Your task to perform on an android device: turn on the 12-hour format for clock Image 0: 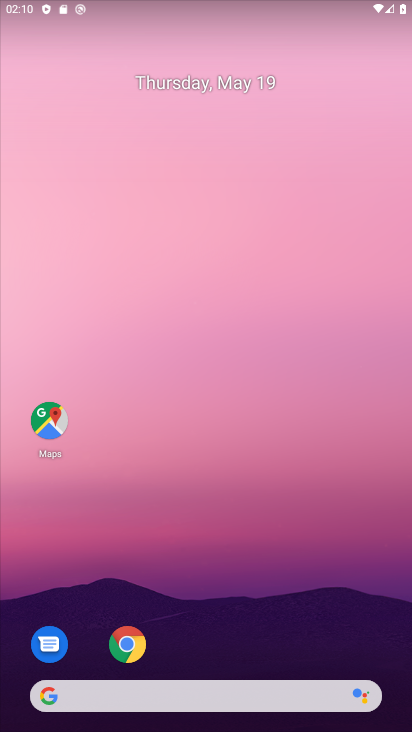
Step 0: drag from (224, 592) to (201, 216)
Your task to perform on an android device: turn on the 12-hour format for clock Image 1: 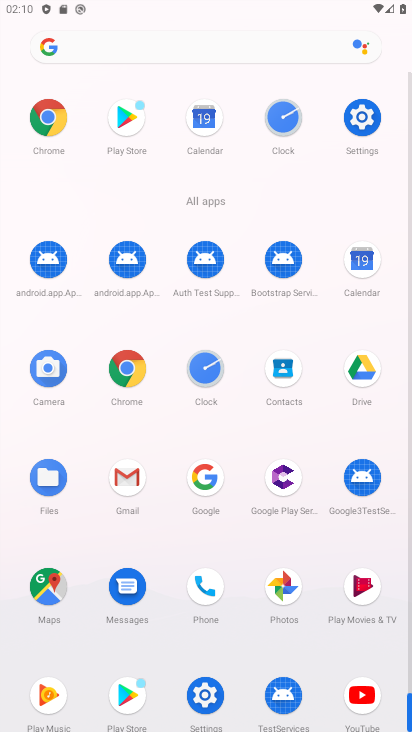
Step 1: click (204, 379)
Your task to perform on an android device: turn on the 12-hour format for clock Image 2: 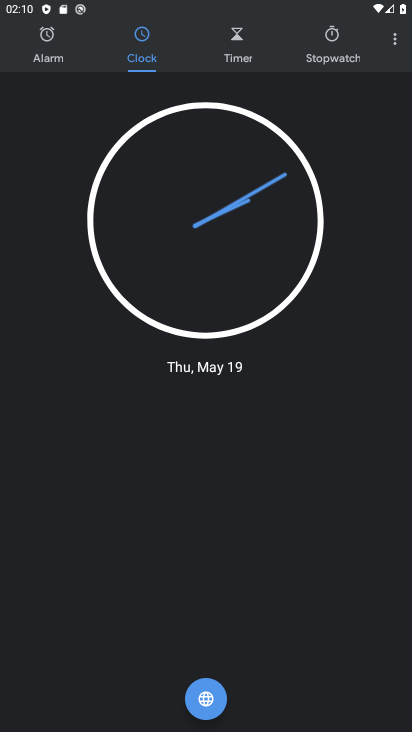
Step 2: click (397, 35)
Your task to perform on an android device: turn on the 12-hour format for clock Image 3: 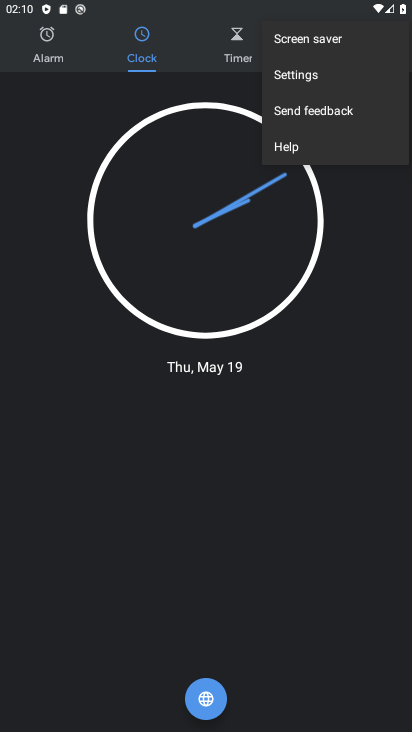
Step 3: click (319, 70)
Your task to perform on an android device: turn on the 12-hour format for clock Image 4: 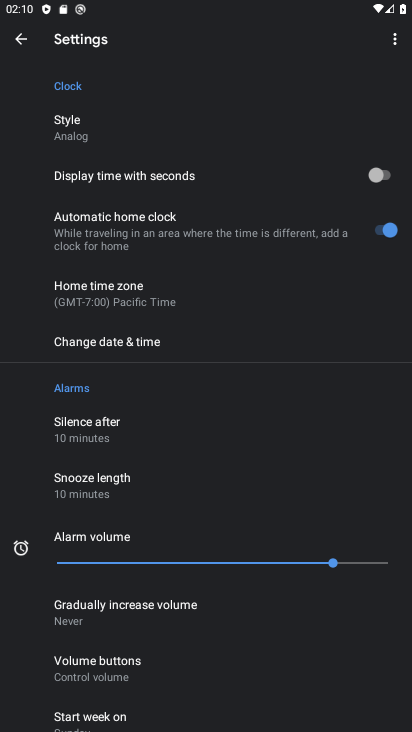
Step 4: click (135, 343)
Your task to perform on an android device: turn on the 12-hour format for clock Image 5: 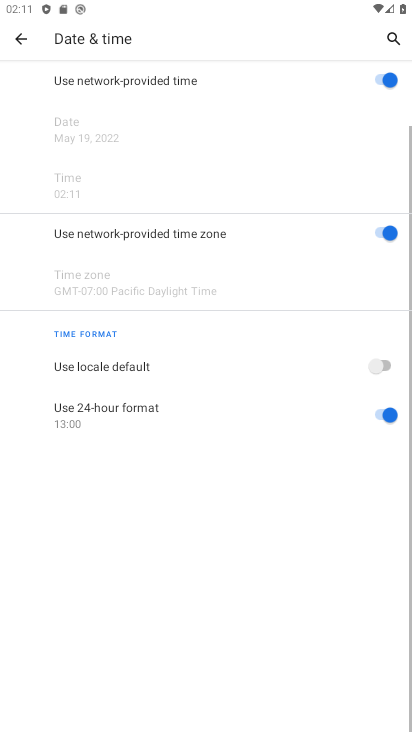
Step 5: click (387, 365)
Your task to perform on an android device: turn on the 12-hour format for clock Image 6: 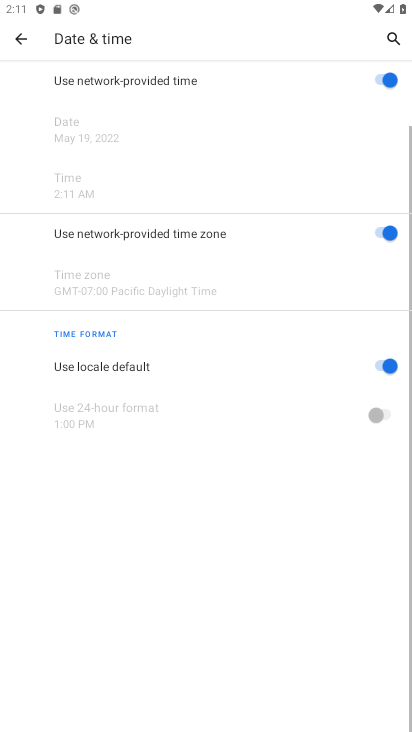
Step 6: click (375, 408)
Your task to perform on an android device: turn on the 12-hour format for clock Image 7: 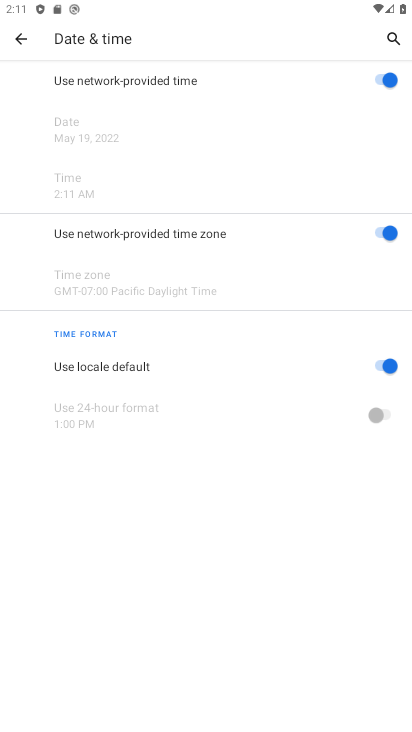
Step 7: task complete